Your task to perform on an android device: Show me productivity apps on the Play Store Image 0: 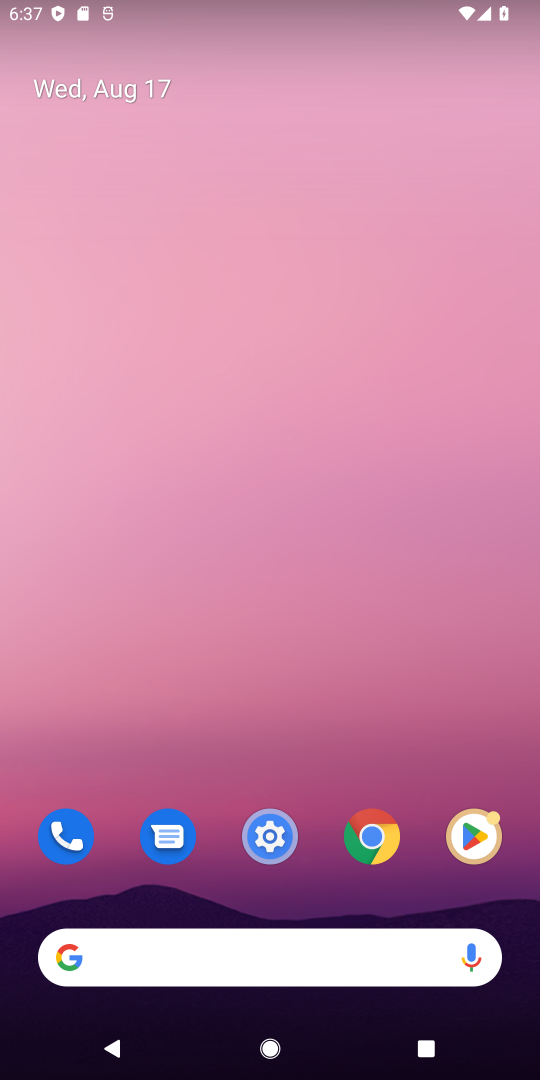
Step 0: drag from (224, 611) to (244, 462)
Your task to perform on an android device: Show me productivity apps on the Play Store Image 1: 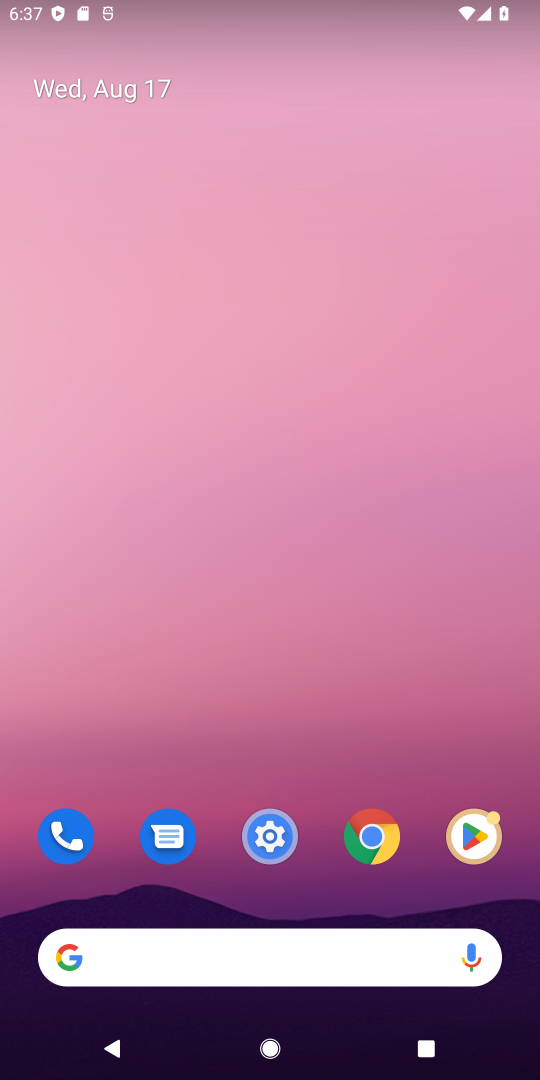
Step 1: click (219, 912)
Your task to perform on an android device: Show me productivity apps on the Play Store Image 2: 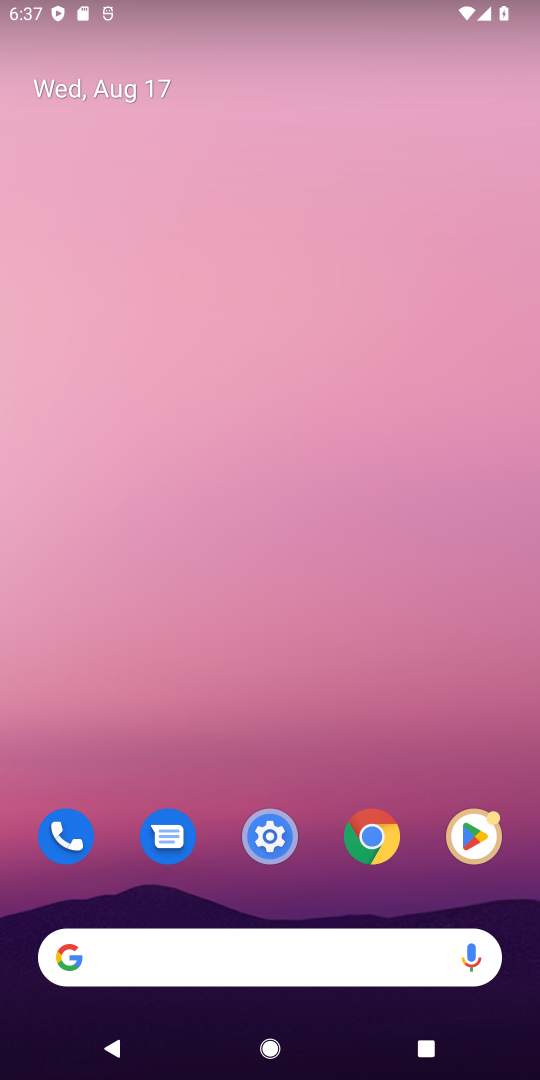
Step 2: drag from (269, 657) to (296, 421)
Your task to perform on an android device: Show me productivity apps on the Play Store Image 3: 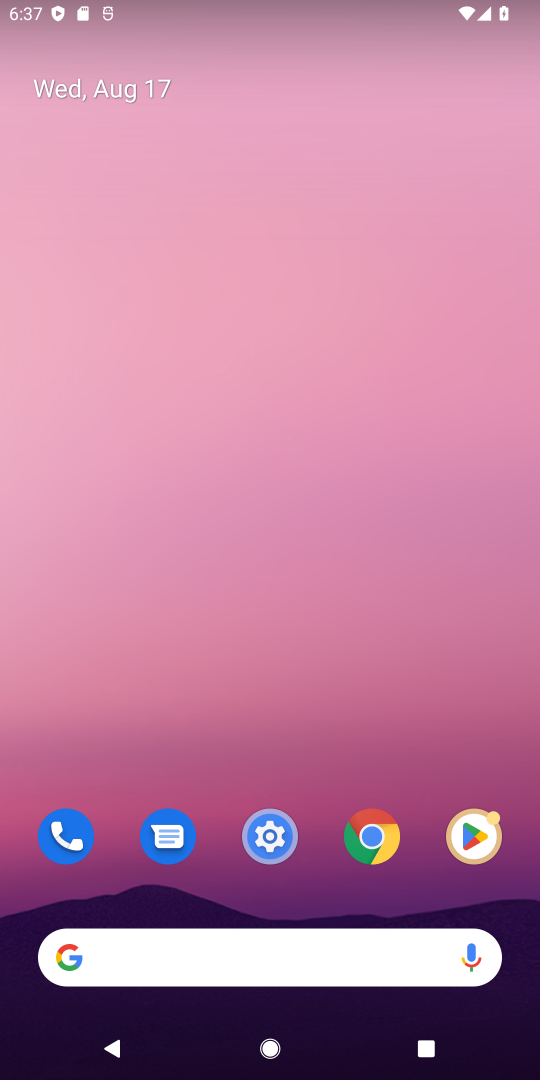
Step 3: drag from (208, 918) to (328, 485)
Your task to perform on an android device: Show me productivity apps on the Play Store Image 4: 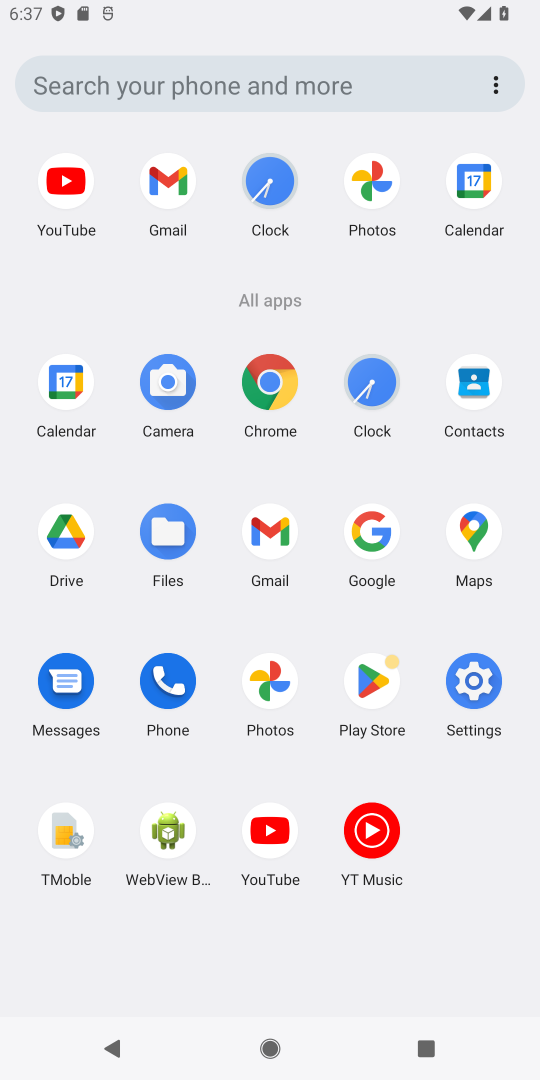
Step 4: click (376, 666)
Your task to perform on an android device: Show me productivity apps on the Play Store Image 5: 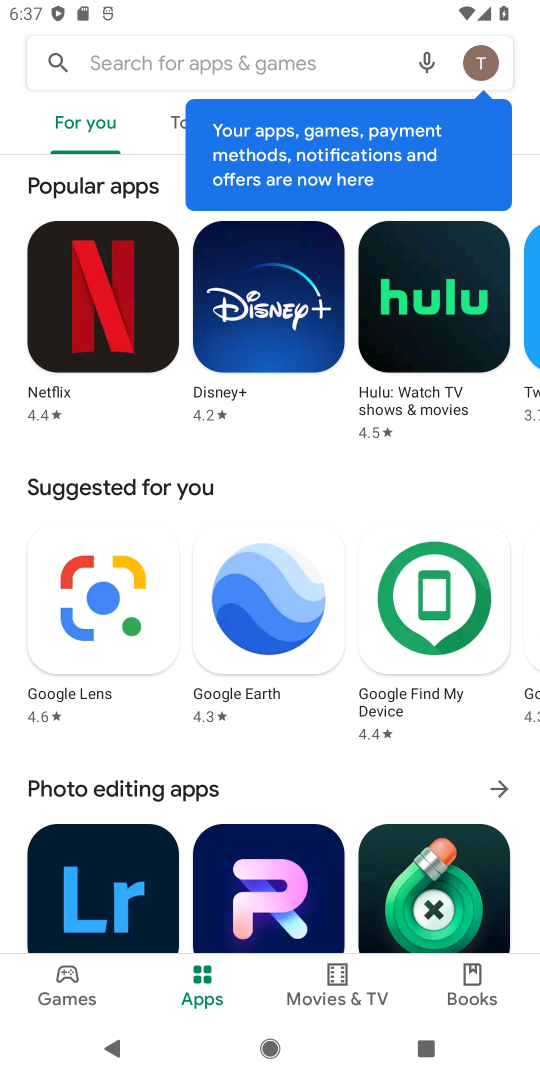
Step 5: task complete